Your task to perform on an android device: open sync settings in chrome Image 0: 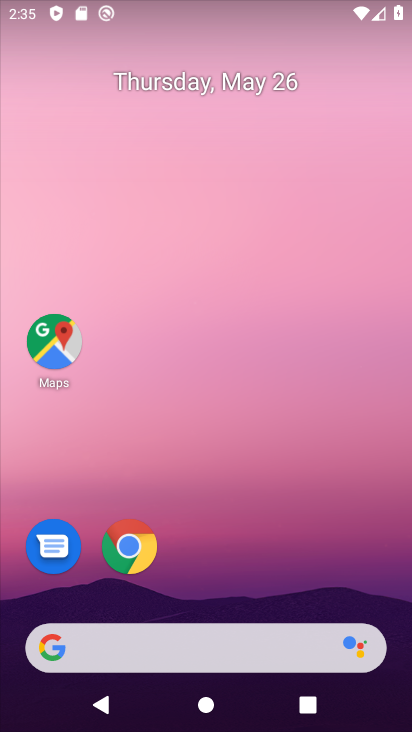
Step 0: click (130, 540)
Your task to perform on an android device: open sync settings in chrome Image 1: 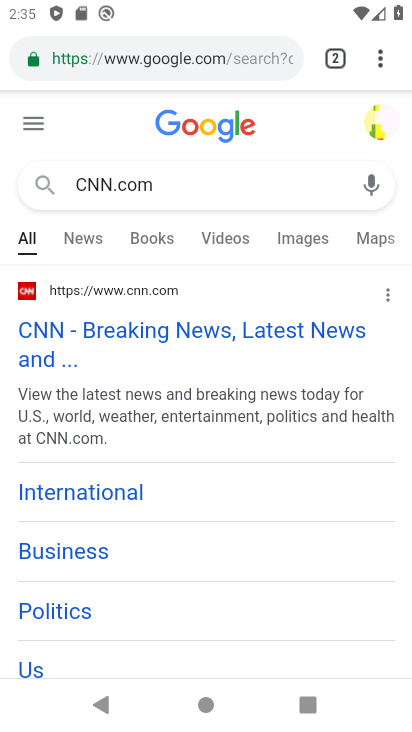
Step 1: click (378, 62)
Your task to perform on an android device: open sync settings in chrome Image 2: 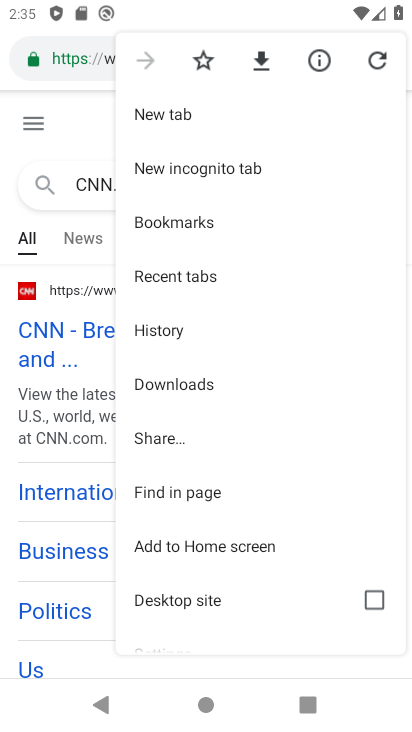
Step 2: drag from (291, 621) to (311, 303)
Your task to perform on an android device: open sync settings in chrome Image 3: 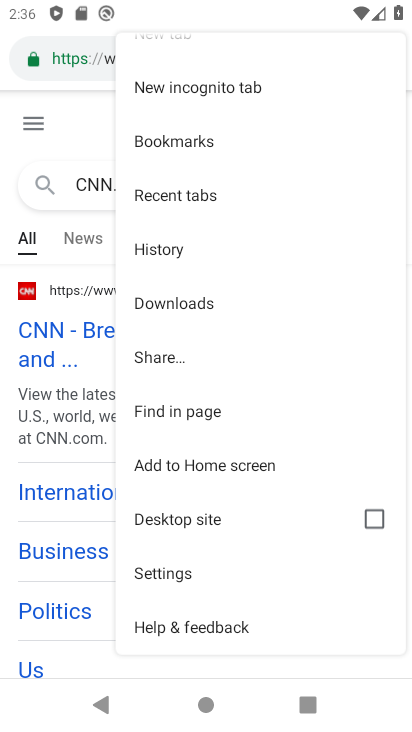
Step 3: click (178, 572)
Your task to perform on an android device: open sync settings in chrome Image 4: 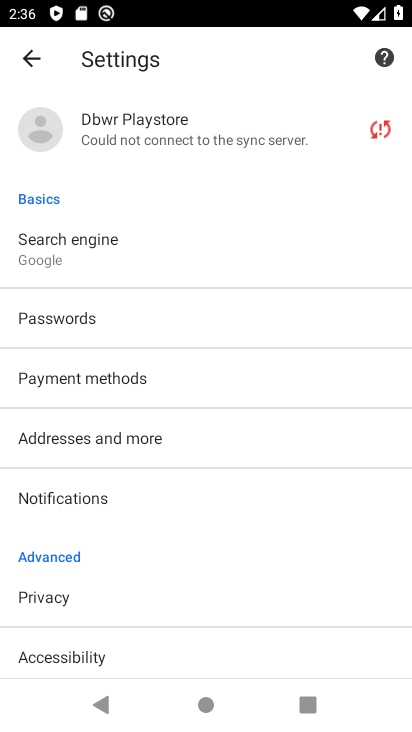
Step 4: drag from (253, 658) to (275, 275)
Your task to perform on an android device: open sync settings in chrome Image 5: 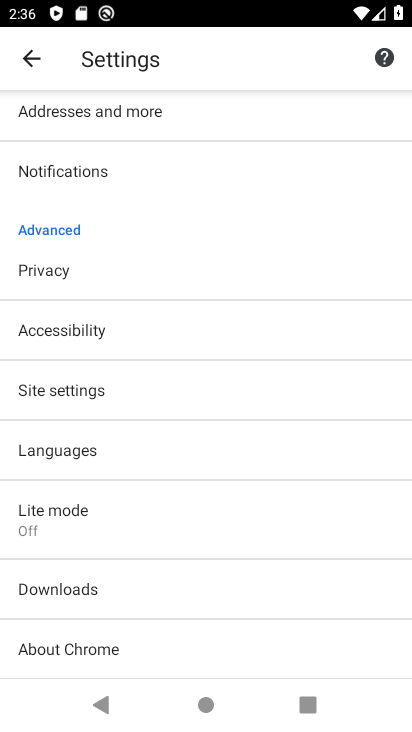
Step 5: click (54, 393)
Your task to perform on an android device: open sync settings in chrome Image 6: 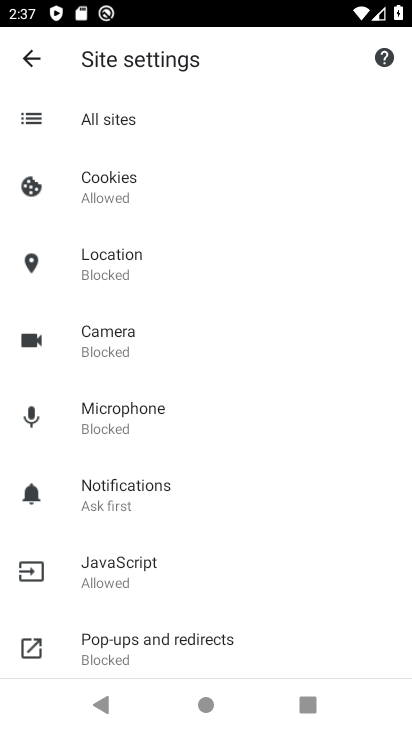
Step 6: drag from (302, 600) to (334, 390)
Your task to perform on an android device: open sync settings in chrome Image 7: 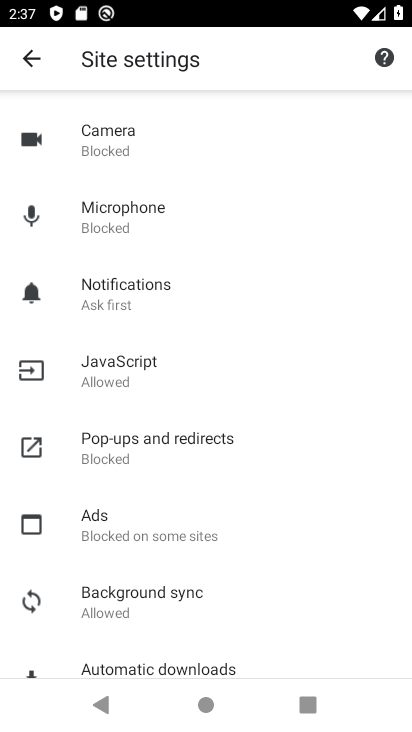
Step 7: click (115, 593)
Your task to perform on an android device: open sync settings in chrome Image 8: 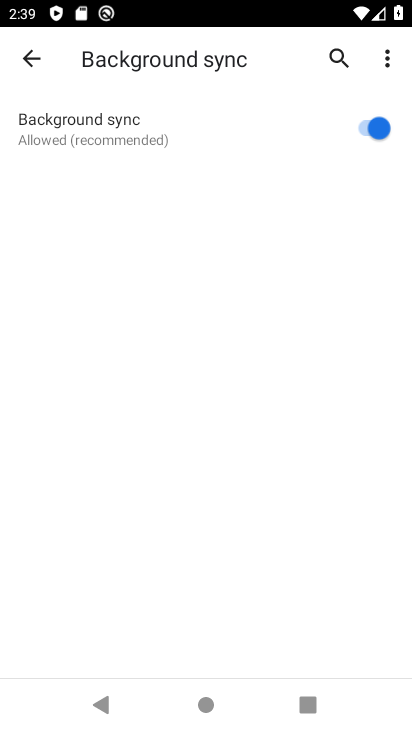
Step 8: task complete